Your task to perform on an android device: Go to Wikipedia Image 0: 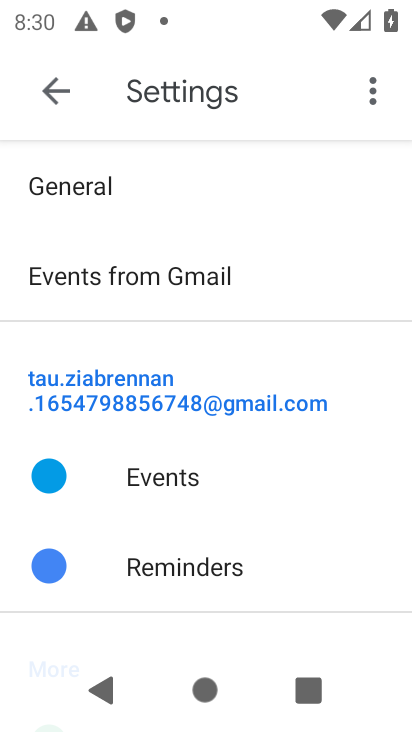
Step 0: press home button
Your task to perform on an android device: Go to Wikipedia Image 1: 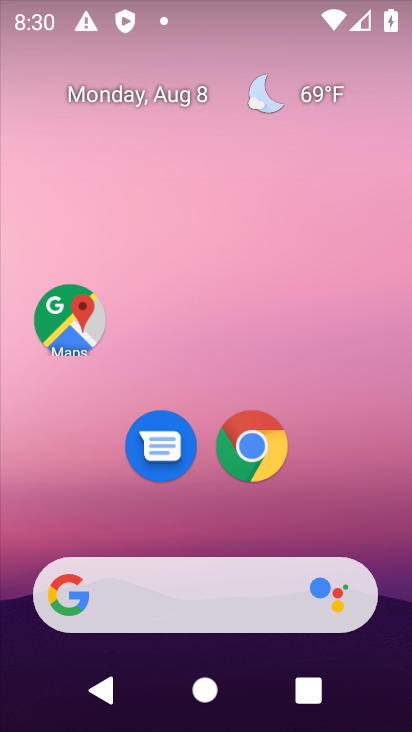
Step 1: click (249, 449)
Your task to perform on an android device: Go to Wikipedia Image 2: 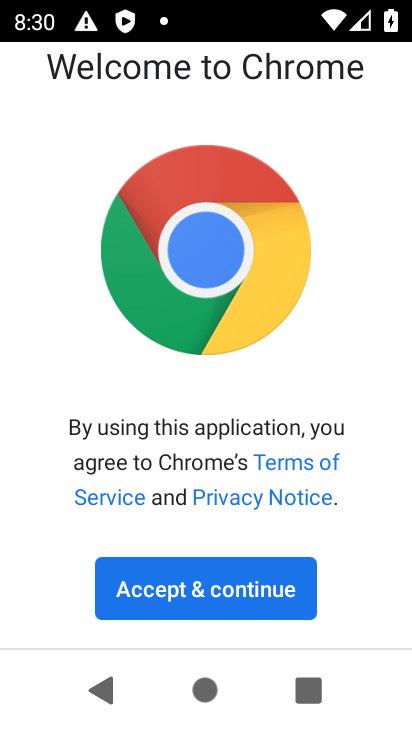
Step 2: click (202, 595)
Your task to perform on an android device: Go to Wikipedia Image 3: 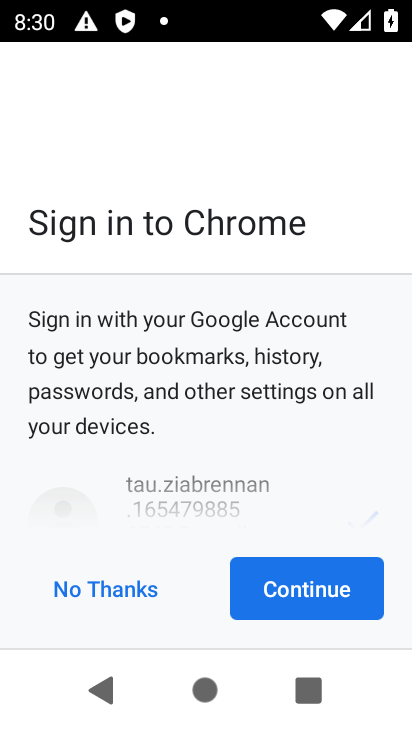
Step 3: click (289, 585)
Your task to perform on an android device: Go to Wikipedia Image 4: 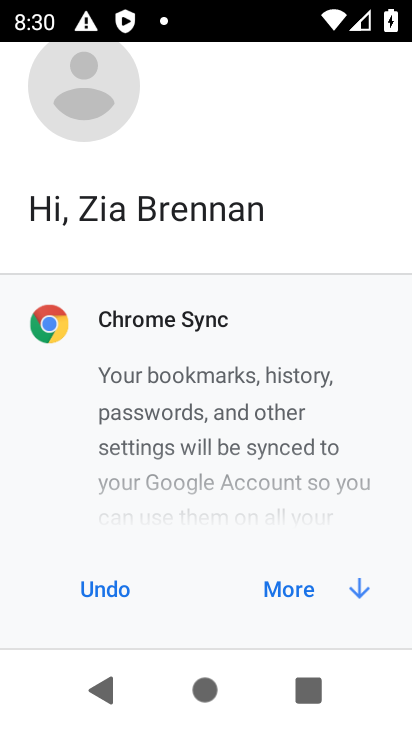
Step 4: click (289, 585)
Your task to perform on an android device: Go to Wikipedia Image 5: 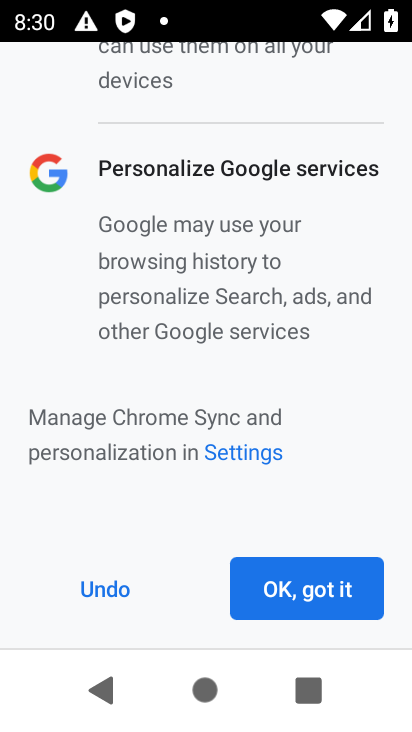
Step 5: click (289, 585)
Your task to perform on an android device: Go to Wikipedia Image 6: 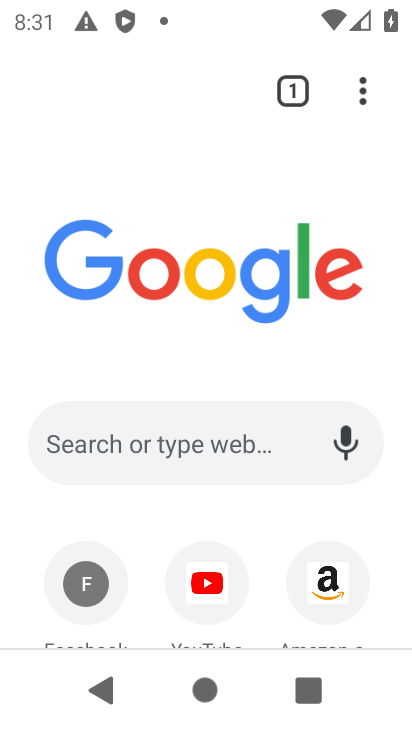
Step 6: click (149, 454)
Your task to perform on an android device: Go to Wikipedia Image 7: 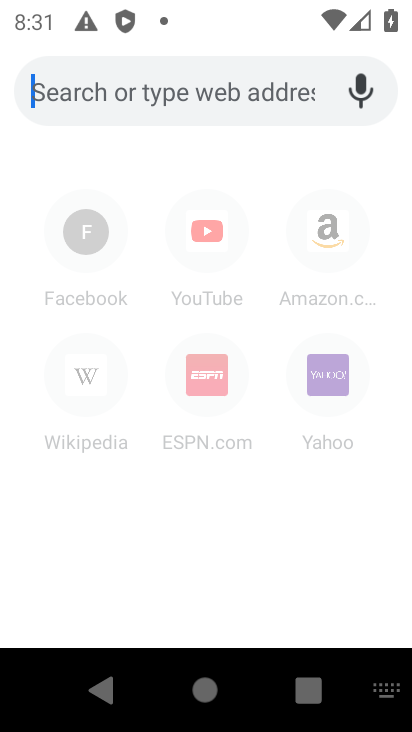
Step 7: type "wikipedia"
Your task to perform on an android device: Go to Wikipedia Image 8: 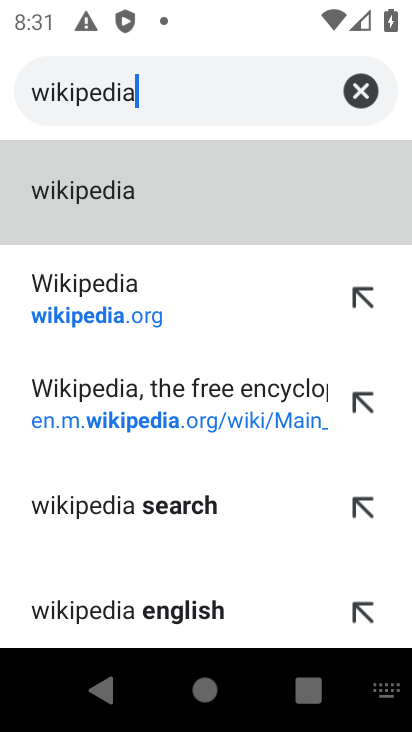
Step 8: click (95, 276)
Your task to perform on an android device: Go to Wikipedia Image 9: 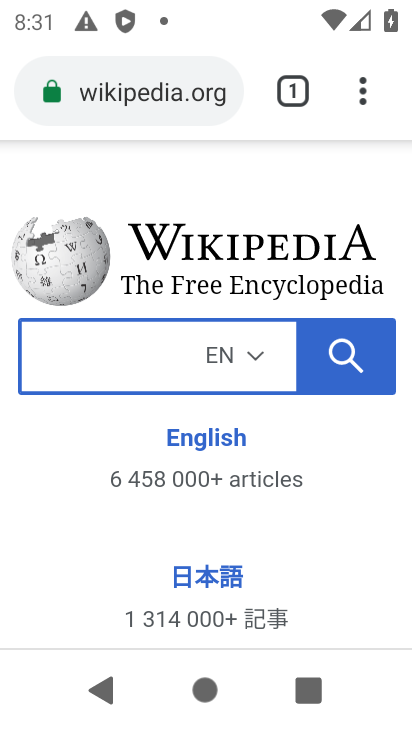
Step 9: task complete